Your task to perform on an android device: turn on bluetooth scan Image 0: 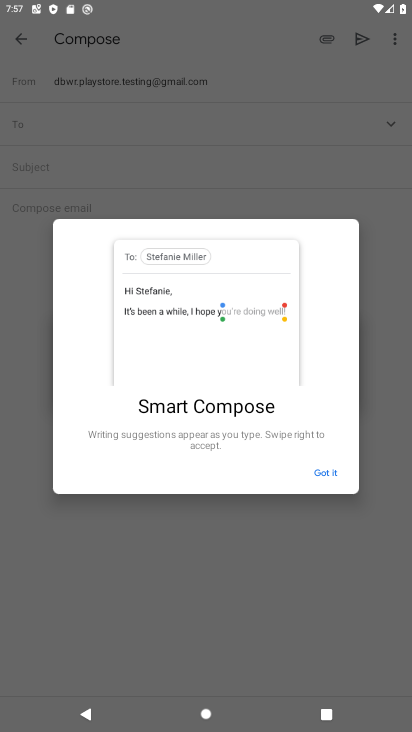
Step 0: press home button
Your task to perform on an android device: turn on bluetooth scan Image 1: 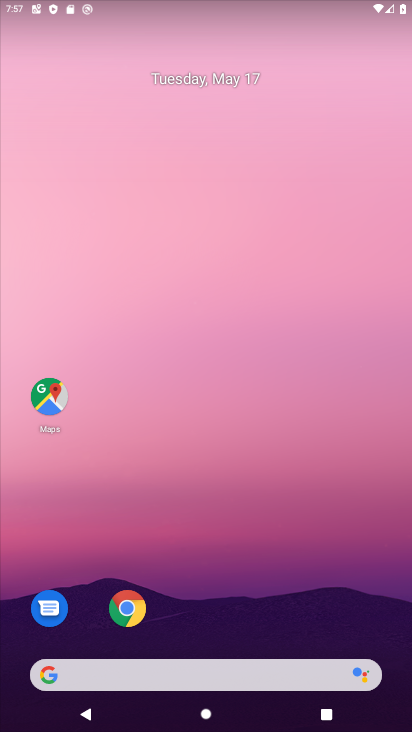
Step 1: drag from (238, 613) to (276, 17)
Your task to perform on an android device: turn on bluetooth scan Image 2: 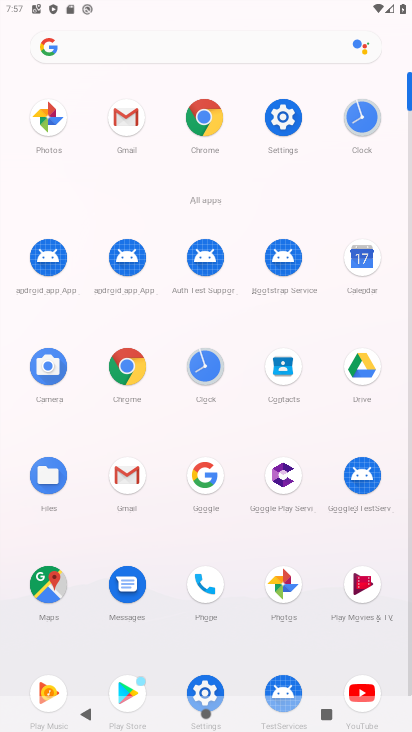
Step 2: click (273, 126)
Your task to perform on an android device: turn on bluetooth scan Image 3: 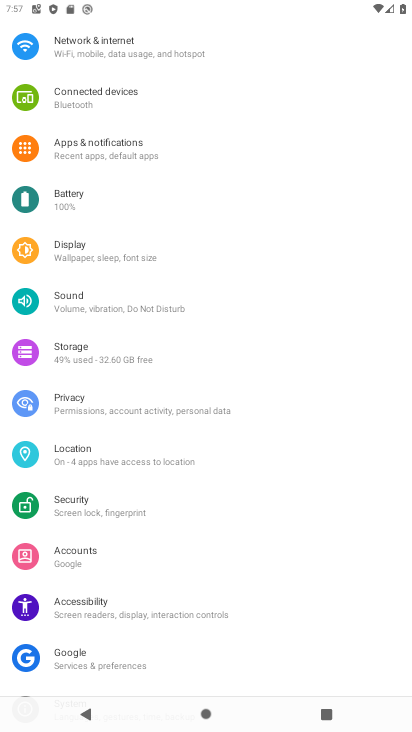
Step 3: click (165, 454)
Your task to perform on an android device: turn on bluetooth scan Image 4: 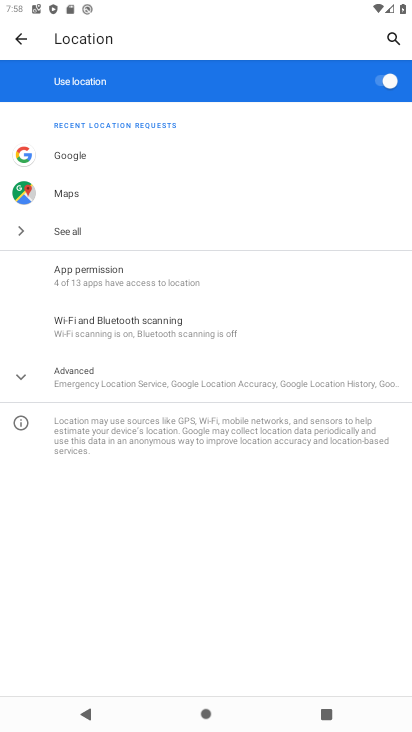
Step 4: click (186, 342)
Your task to perform on an android device: turn on bluetooth scan Image 5: 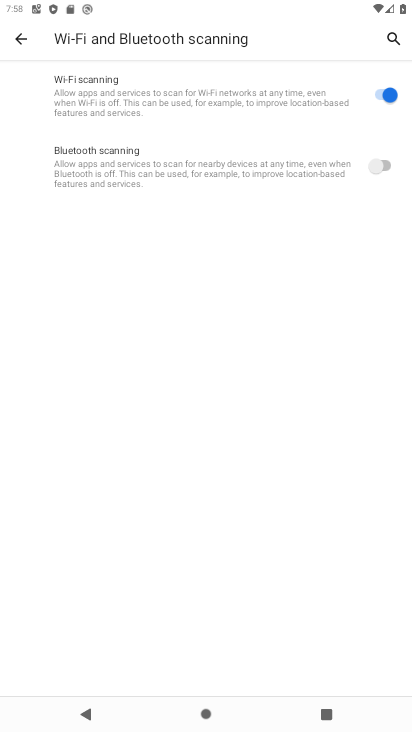
Step 5: click (396, 164)
Your task to perform on an android device: turn on bluetooth scan Image 6: 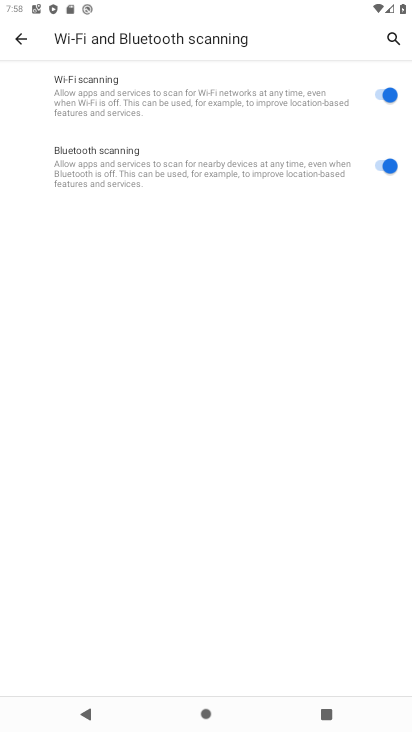
Step 6: task complete